Your task to perform on an android device: open the mobile data screen to see how much data has been used Image 0: 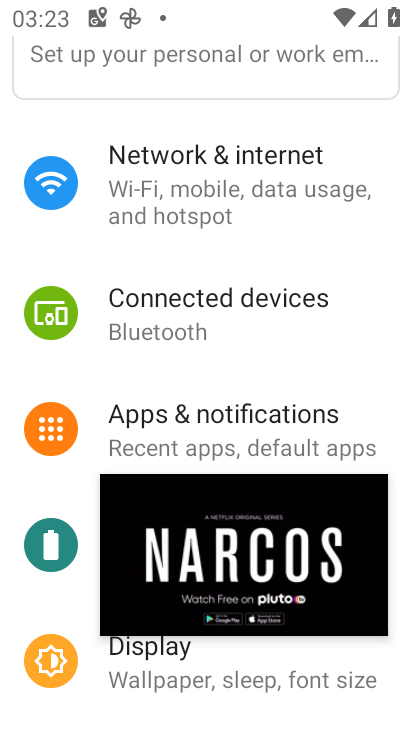
Step 0: press home button
Your task to perform on an android device: open the mobile data screen to see how much data has been used Image 1: 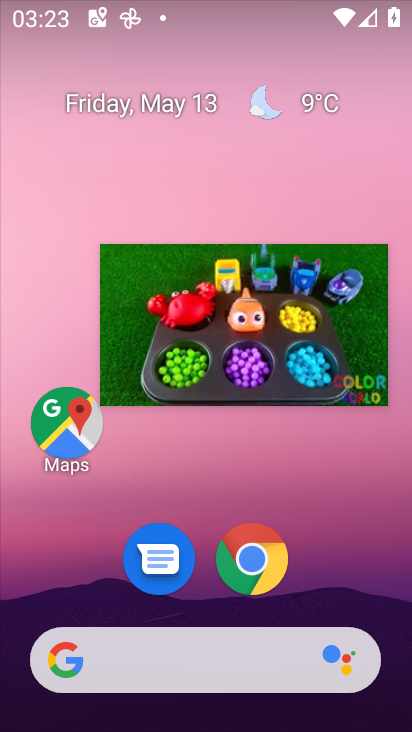
Step 1: drag from (360, 505) to (308, 269)
Your task to perform on an android device: open the mobile data screen to see how much data has been used Image 2: 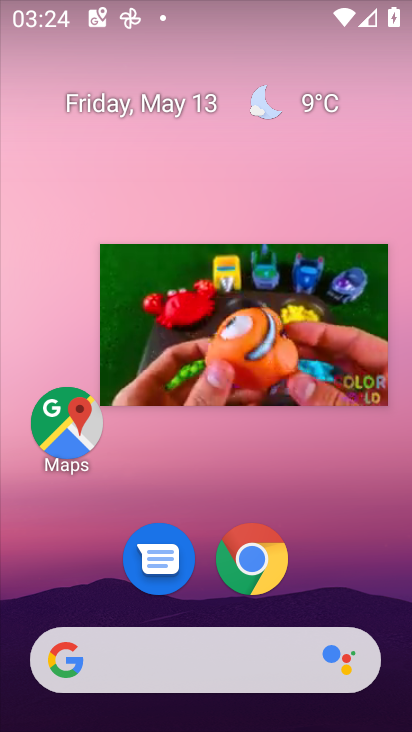
Step 2: drag from (365, 510) to (305, 252)
Your task to perform on an android device: open the mobile data screen to see how much data has been used Image 3: 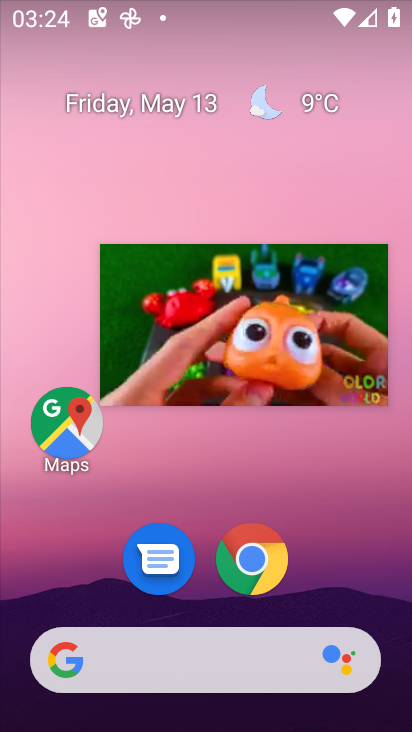
Step 3: drag from (395, 645) to (291, 208)
Your task to perform on an android device: open the mobile data screen to see how much data has been used Image 4: 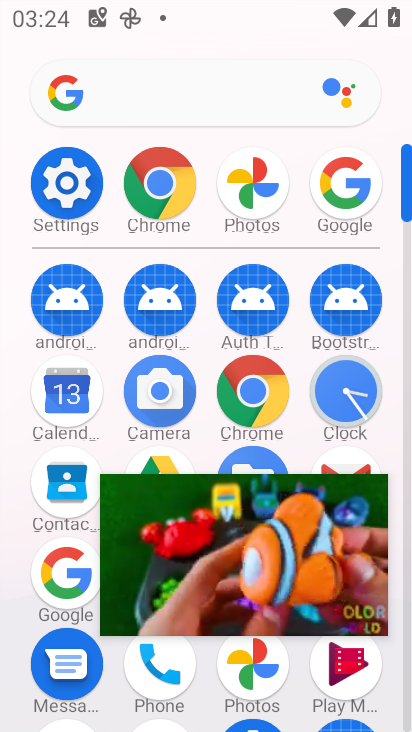
Step 4: click (72, 193)
Your task to perform on an android device: open the mobile data screen to see how much data has been used Image 5: 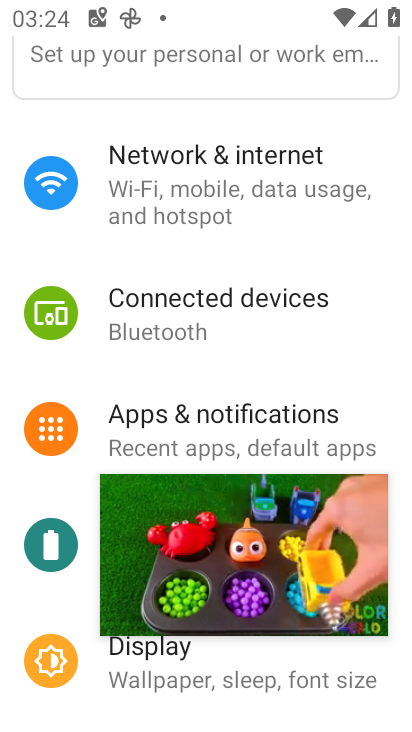
Step 5: click (165, 198)
Your task to perform on an android device: open the mobile data screen to see how much data has been used Image 6: 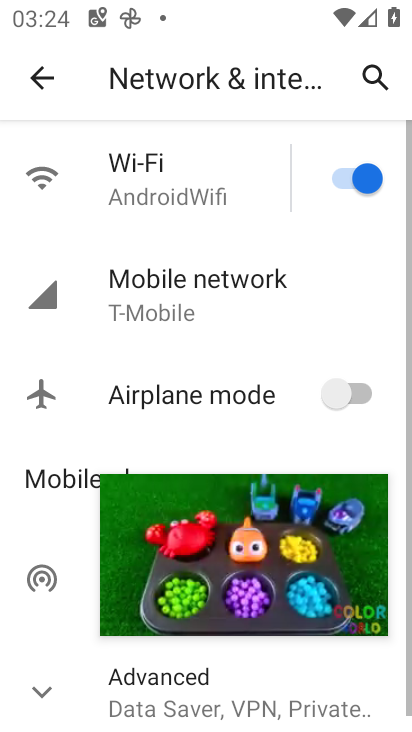
Step 6: click (189, 293)
Your task to perform on an android device: open the mobile data screen to see how much data has been used Image 7: 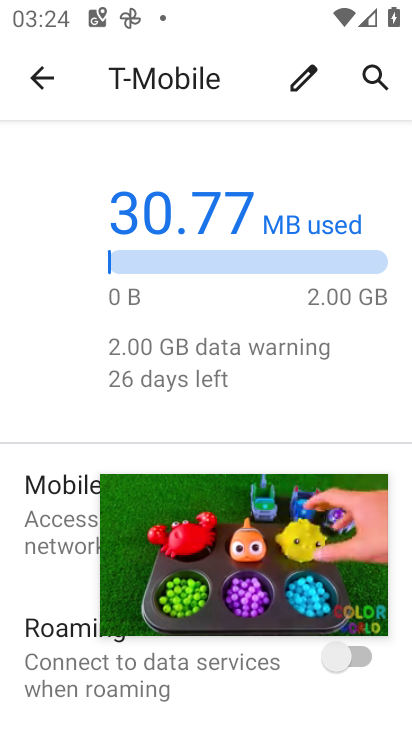
Step 7: task complete